Your task to perform on an android device: find photos in the google photos app Image 0: 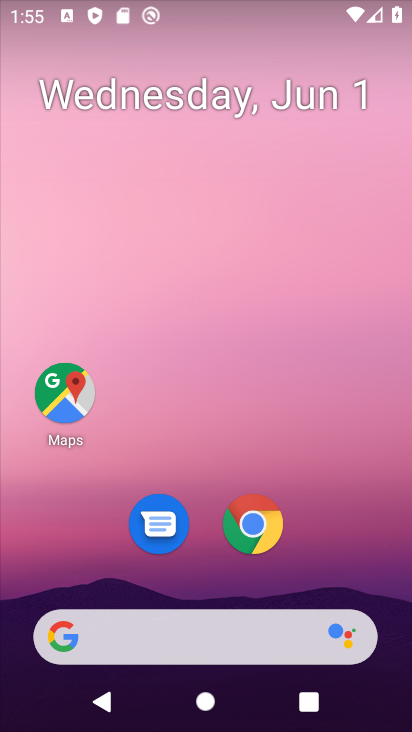
Step 0: drag from (354, 528) to (306, 20)
Your task to perform on an android device: find photos in the google photos app Image 1: 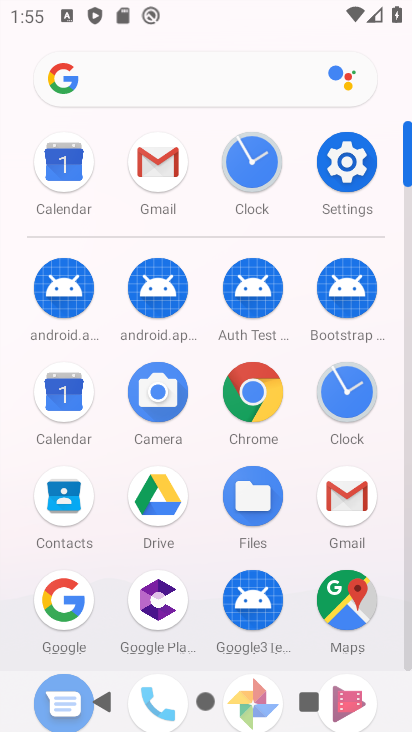
Step 1: drag from (315, 518) to (326, 190)
Your task to perform on an android device: find photos in the google photos app Image 2: 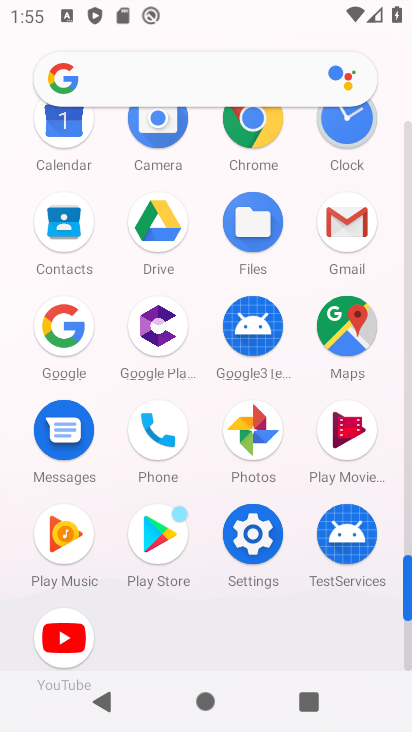
Step 2: click (257, 420)
Your task to perform on an android device: find photos in the google photos app Image 3: 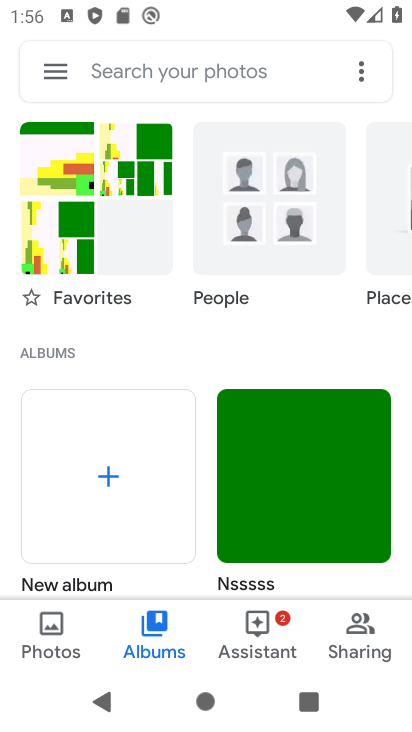
Step 3: click (45, 624)
Your task to perform on an android device: find photos in the google photos app Image 4: 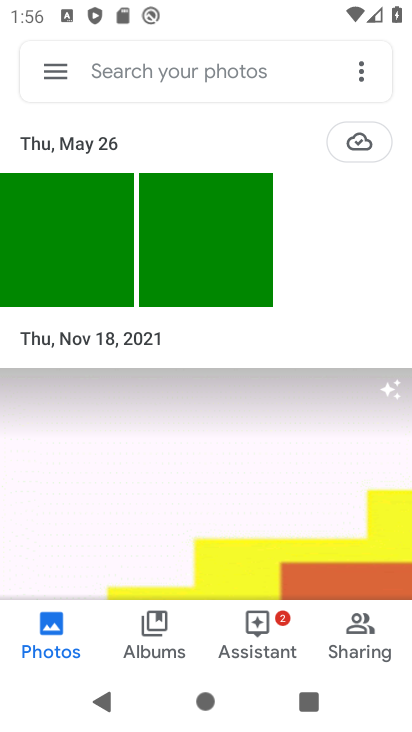
Step 4: task complete